Your task to perform on an android device: When is my next appointment? Image 0: 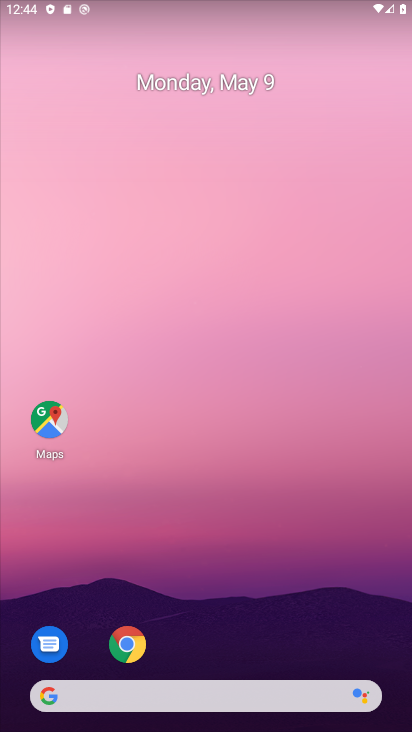
Step 0: drag from (204, 611) to (174, 91)
Your task to perform on an android device: When is my next appointment? Image 1: 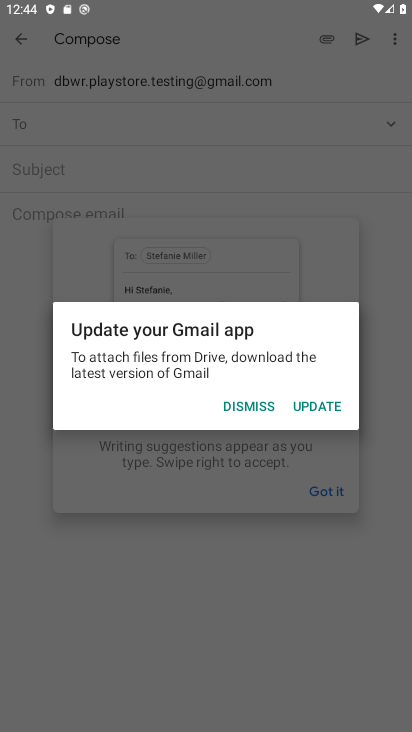
Step 1: press home button
Your task to perform on an android device: When is my next appointment? Image 2: 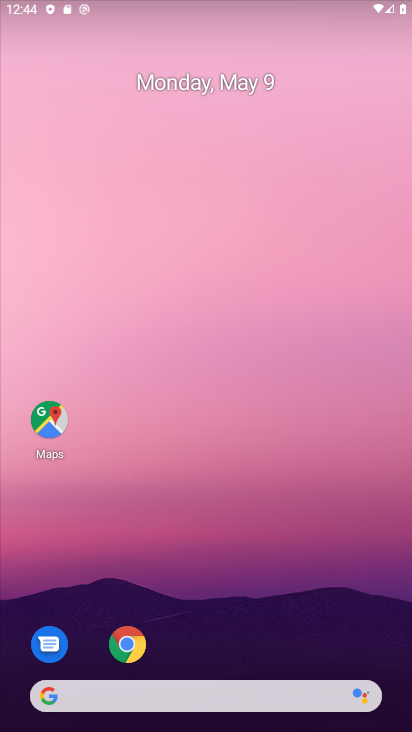
Step 2: drag from (235, 614) to (188, 149)
Your task to perform on an android device: When is my next appointment? Image 3: 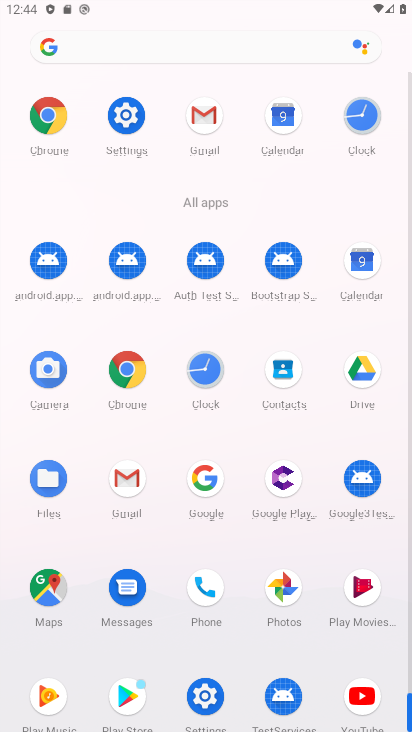
Step 3: click (365, 288)
Your task to perform on an android device: When is my next appointment? Image 4: 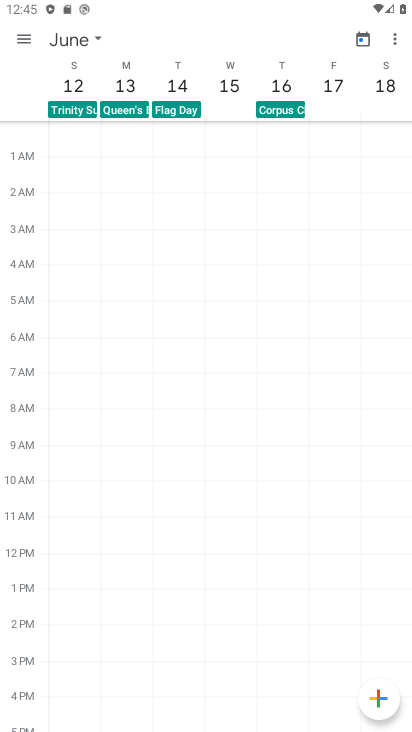
Step 4: drag from (225, 400) to (210, 731)
Your task to perform on an android device: When is my next appointment? Image 5: 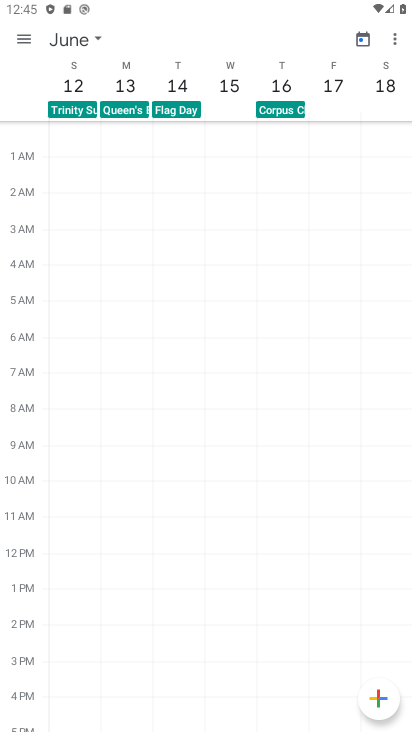
Step 5: drag from (273, 513) to (289, 70)
Your task to perform on an android device: When is my next appointment? Image 6: 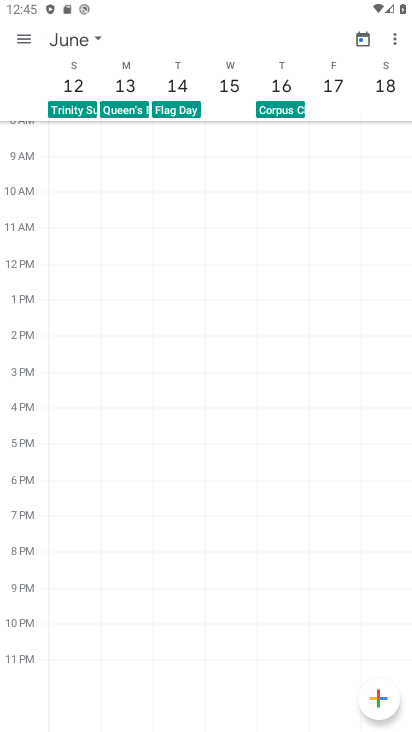
Step 6: drag from (254, 196) to (231, 565)
Your task to perform on an android device: When is my next appointment? Image 7: 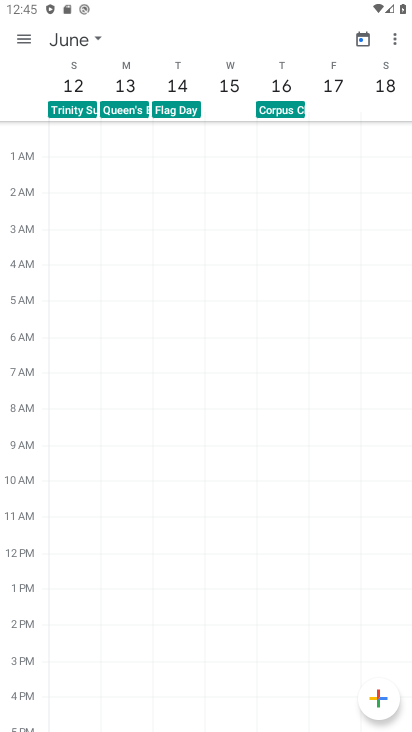
Step 7: click (38, 43)
Your task to perform on an android device: When is my next appointment? Image 8: 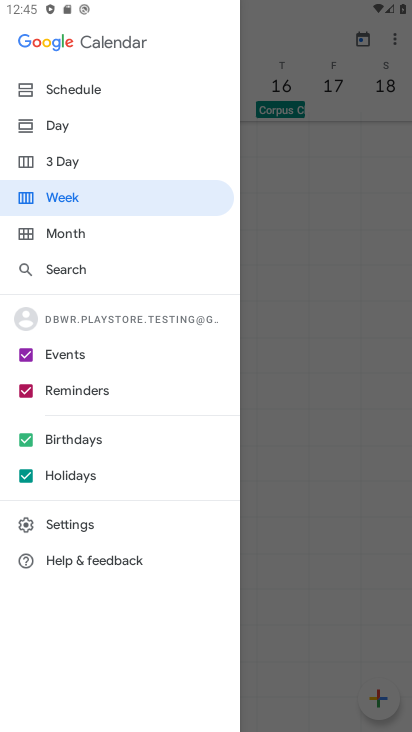
Step 8: click (92, 99)
Your task to perform on an android device: When is my next appointment? Image 9: 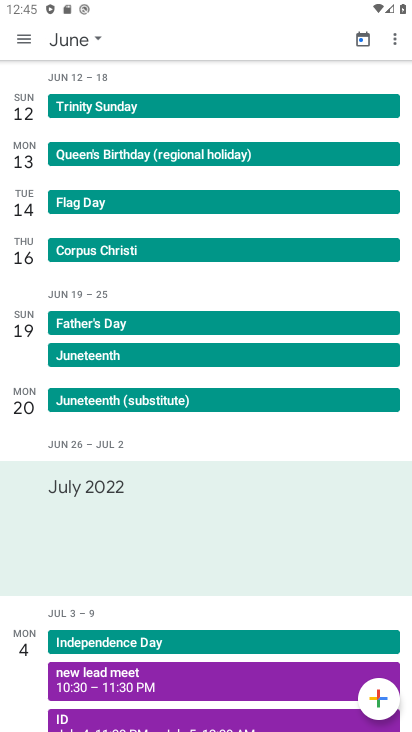
Step 9: click (80, 52)
Your task to perform on an android device: When is my next appointment? Image 10: 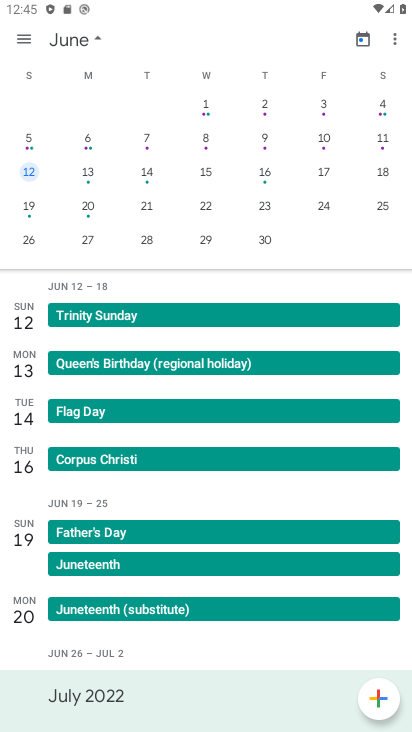
Step 10: drag from (126, 200) to (355, 196)
Your task to perform on an android device: When is my next appointment? Image 11: 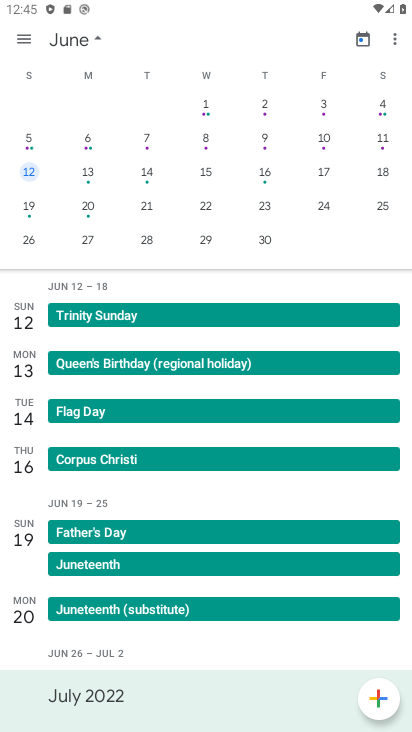
Step 11: drag from (50, 156) to (312, 173)
Your task to perform on an android device: When is my next appointment? Image 12: 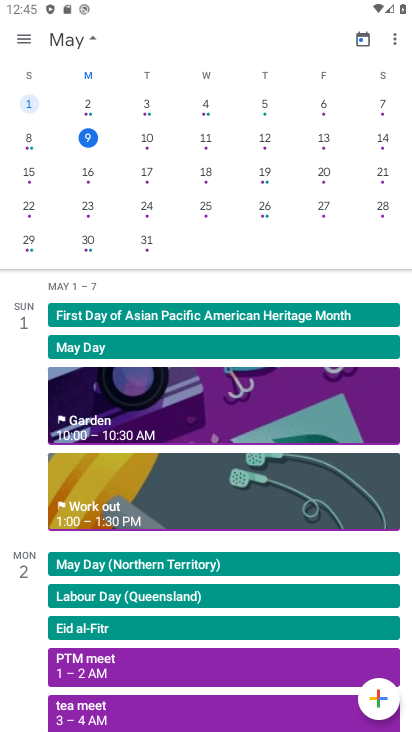
Step 12: click (90, 143)
Your task to perform on an android device: When is my next appointment? Image 13: 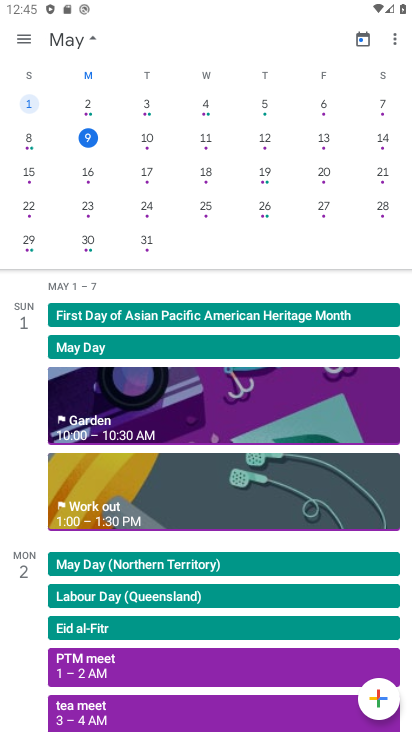
Step 13: click (90, 143)
Your task to perform on an android device: When is my next appointment? Image 14: 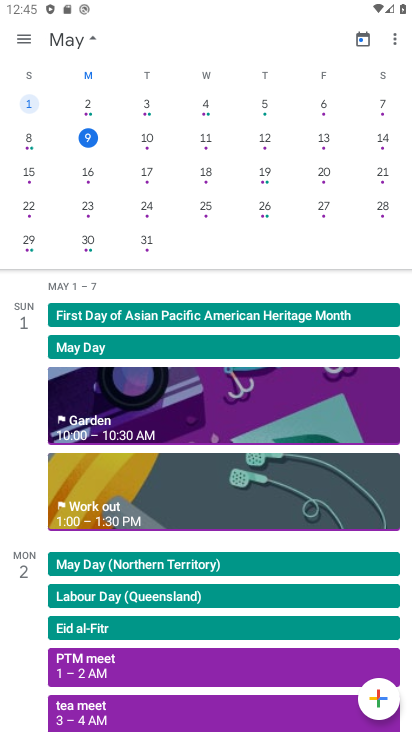
Step 14: click (94, 145)
Your task to perform on an android device: When is my next appointment? Image 15: 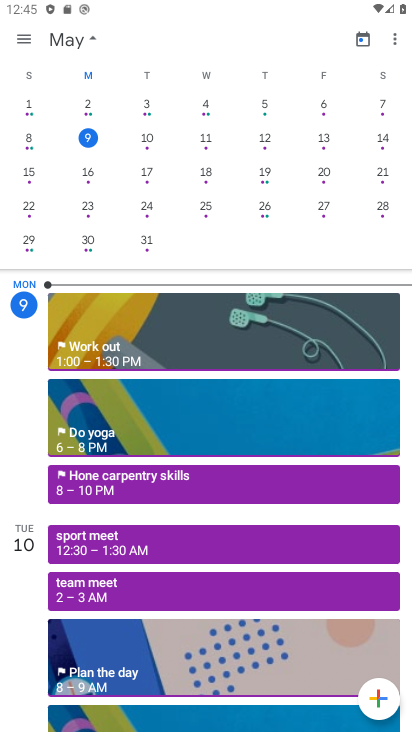
Step 15: task complete